Your task to perform on an android device: Empty the shopping cart on bestbuy.com. Search for "razer kraken" on bestbuy.com, select the first entry, and add it to the cart. Image 0: 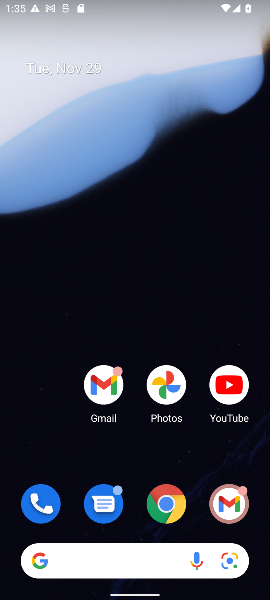
Step 0: click (165, 517)
Your task to perform on an android device: Empty the shopping cart on bestbuy.com. Search for "razer kraken" on bestbuy.com, select the first entry, and add it to the cart. Image 1: 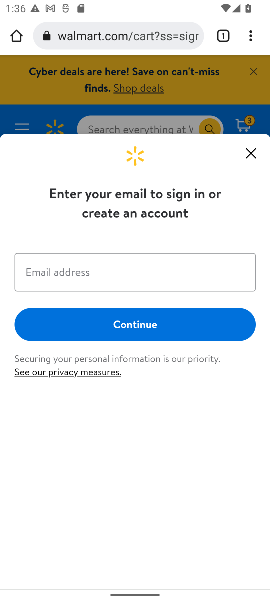
Step 1: click (111, 38)
Your task to perform on an android device: Empty the shopping cart on bestbuy.com. Search for "razer kraken" on bestbuy.com, select the first entry, and add it to the cart. Image 2: 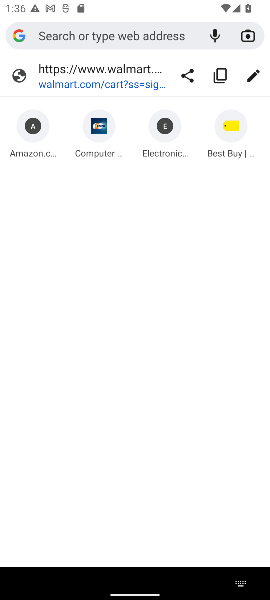
Step 2: click (224, 136)
Your task to perform on an android device: Empty the shopping cart on bestbuy.com. Search for "razer kraken" on bestbuy.com, select the first entry, and add it to the cart. Image 3: 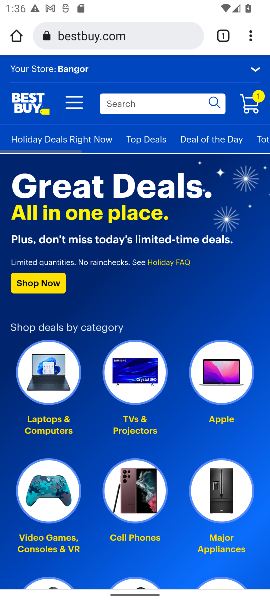
Step 3: click (251, 106)
Your task to perform on an android device: Empty the shopping cart on bestbuy.com. Search for "razer kraken" on bestbuy.com, select the first entry, and add it to the cart. Image 4: 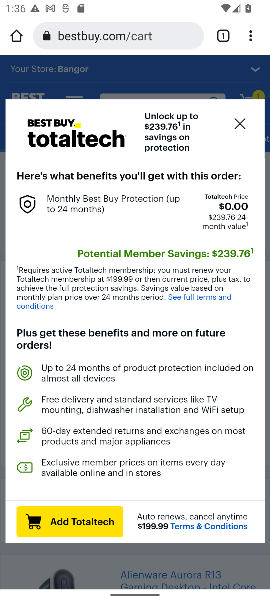
Step 4: click (238, 124)
Your task to perform on an android device: Empty the shopping cart on bestbuy.com. Search for "razer kraken" on bestbuy.com, select the first entry, and add it to the cart. Image 5: 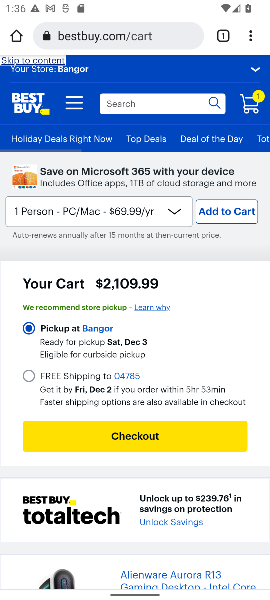
Step 5: drag from (164, 388) to (171, 199)
Your task to perform on an android device: Empty the shopping cart on bestbuy.com. Search for "razer kraken" on bestbuy.com, select the first entry, and add it to the cart. Image 6: 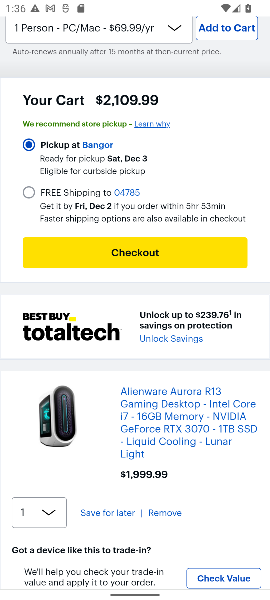
Step 6: click (154, 510)
Your task to perform on an android device: Empty the shopping cart on bestbuy.com. Search for "razer kraken" on bestbuy.com, select the first entry, and add it to the cart. Image 7: 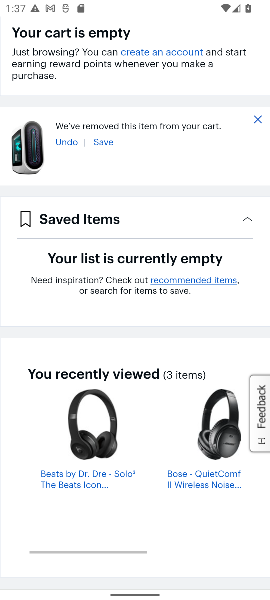
Step 7: drag from (98, 213) to (107, 369)
Your task to perform on an android device: Empty the shopping cart on bestbuy.com. Search for "razer kraken" on bestbuy.com, select the first entry, and add it to the cart. Image 8: 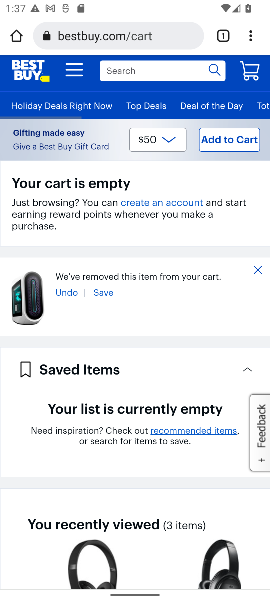
Step 8: click (117, 76)
Your task to perform on an android device: Empty the shopping cart on bestbuy.com. Search for "razer kraken" on bestbuy.com, select the first entry, and add it to the cart. Image 9: 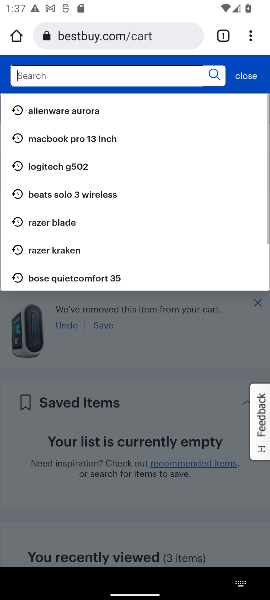
Step 9: type "razer kraken"
Your task to perform on an android device: Empty the shopping cart on bestbuy.com. Search for "razer kraken" on bestbuy.com, select the first entry, and add it to the cart. Image 10: 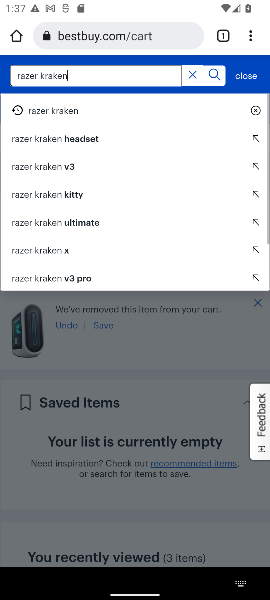
Step 10: click (62, 112)
Your task to perform on an android device: Empty the shopping cart on bestbuy.com. Search for "razer kraken" on bestbuy.com, select the first entry, and add it to the cart. Image 11: 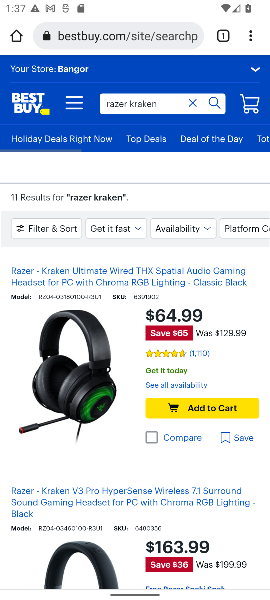
Step 11: click (112, 280)
Your task to perform on an android device: Empty the shopping cart on bestbuy.com. Search for "razer kraken" on bestbuy.com, select the first entry, and add it to the cart. Image 12: 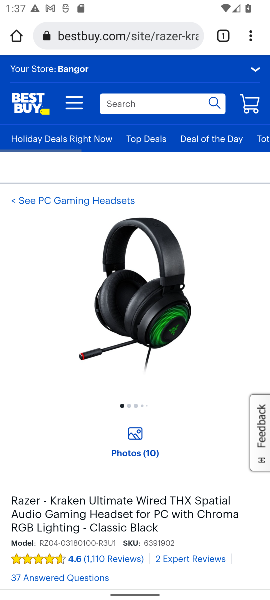
Step 12: drag from (164, 470) to (182, 144)
Your task to perform on an android device: Empty the shopping cart on bestbuy.com. Search for "razer kraken" on bestbuy.com, select the first entry, and add it to the cart. Image 13: 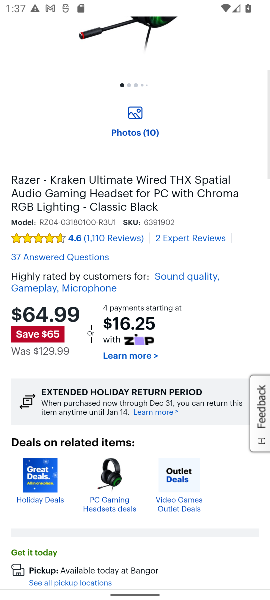
Step 13: drag from (166, 438) to (189, 189)
Your task to perform on an android device: Empty the shopping cart on bestbuy.com. Search for "razer kraken" on bestbuy.com, select the first entry, and add it to the cart. Image 14: 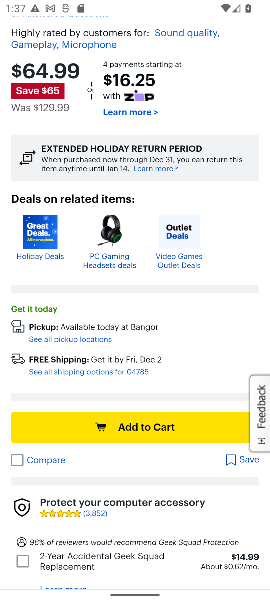
Step 14: click (150, 423)
Your task to perform on an android device: Empty the shopping cart on bestbuy.com. Search for "razer kraken" on bestbuy.com, select the first entry, and add it to the cart. Image 15: 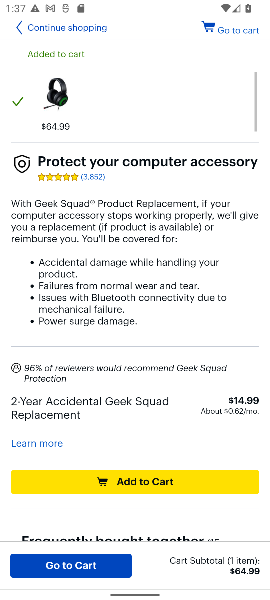
Step 15: task complete